Your task to perform on an android device: Find coffee shops on Maps Image 0: 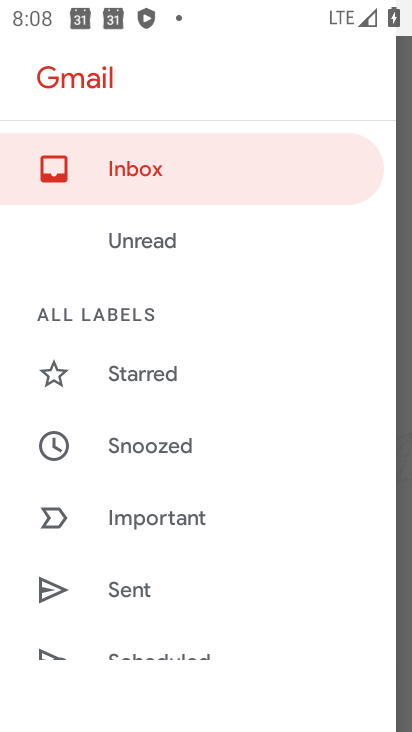
Step 0: press home button
Your task to perform on an android device: Find coffee shops on Maps Image 1: 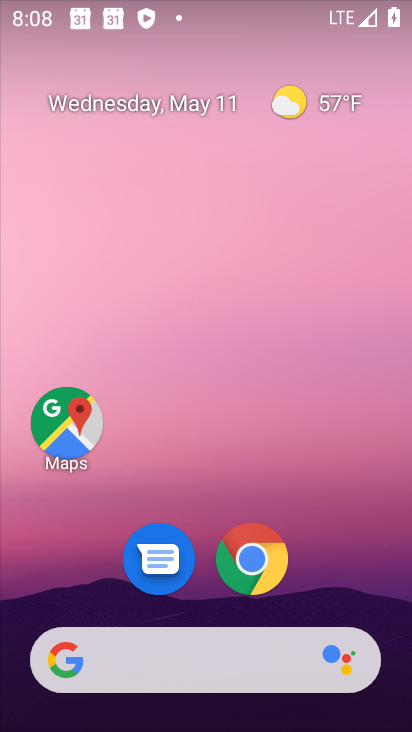
Step 1: drag from (350, 540) to (274, 33)
Your task to perform on an android device: Find coffee shops on Maps Image 2: 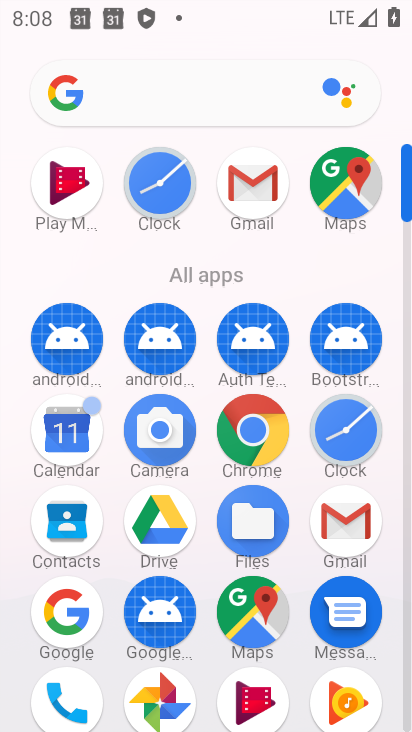
Step 2: click (310, 201)
Your task to perform on an android device: Find coffee shops on Maps Image 3: 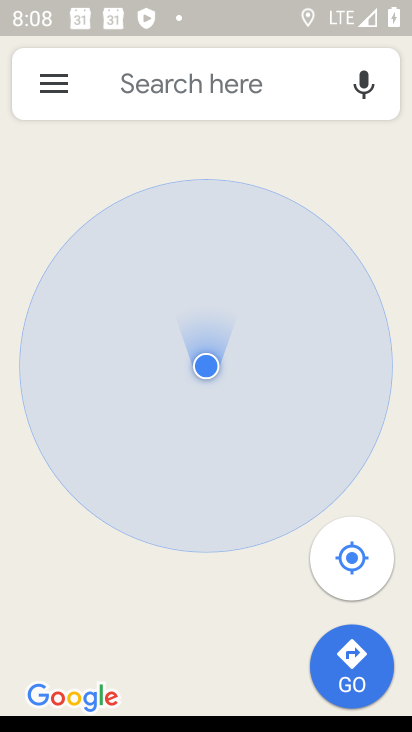
Step 3: click (206, 95)
Your task to perform on an android device: Find coffee shops on Maps Image 4: 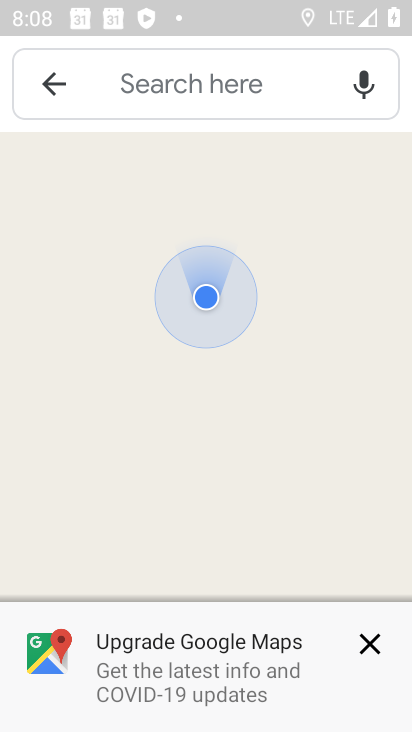
Step 4: click (215, 83)
Your task to perform on an android device: Find coffee shops on Maps Image 5: 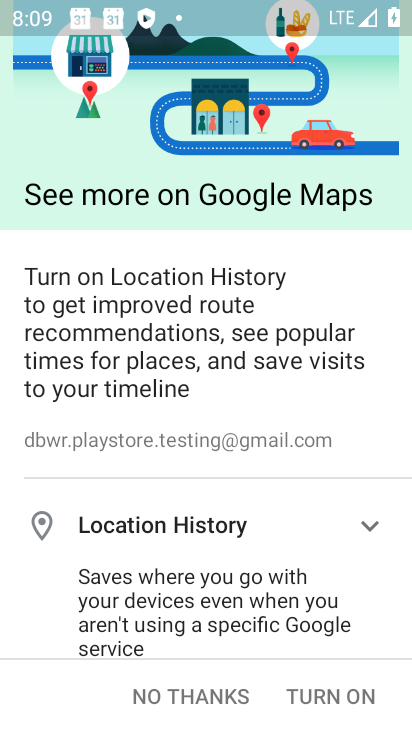
Step 5: type "coffee shop"
Your task to perform on an android device: Find coffee shops on Maps Image 6: 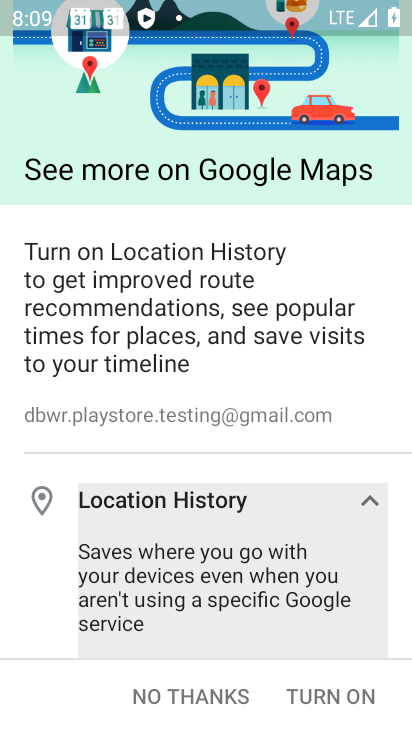
Step 6: click (163, 693)
Your task to perform on an android device: Find coffee shops on Maps Image 7: 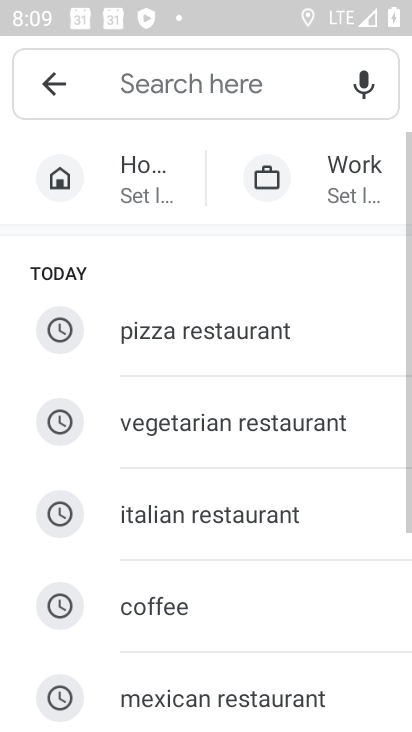
Step 7: click (177, 82)
Your task to perform on an android device: Find coffee shops on Maps Image 8: 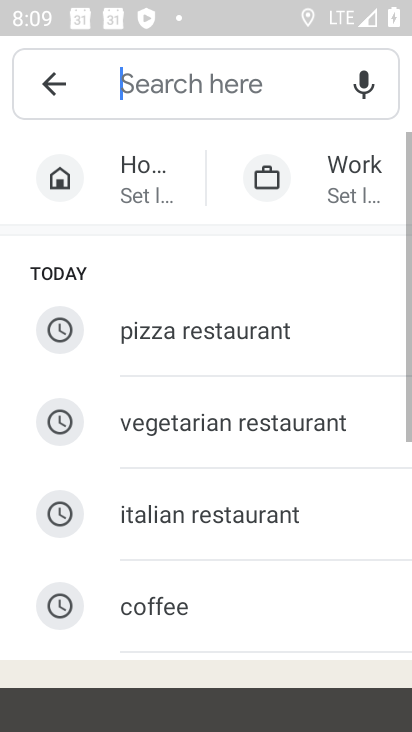
Step 8: click (177, 82)
Your task to perform on an android device: Find coffee shops on Maps Image 9: 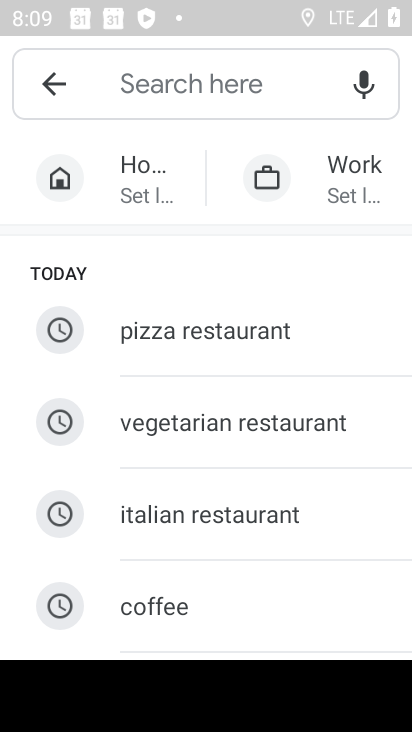
Step 9: type "coffee shops"
Your task to perform on an android device: Find coffee shops on Maps Image 10: 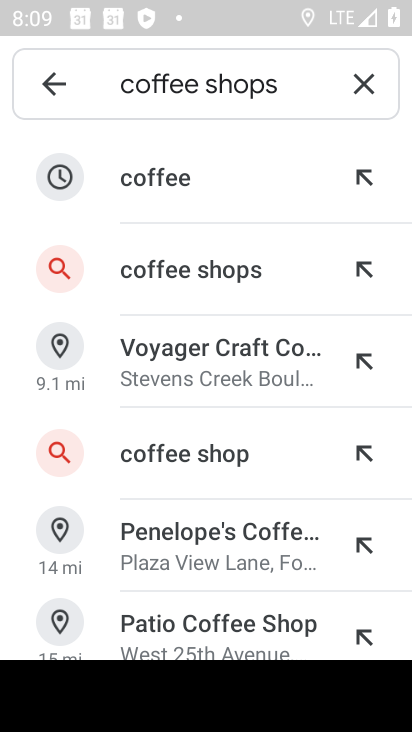
Step 10: click (190, 264)
Your task to perform on an android device: Find coffee shops on Maps Image 11: 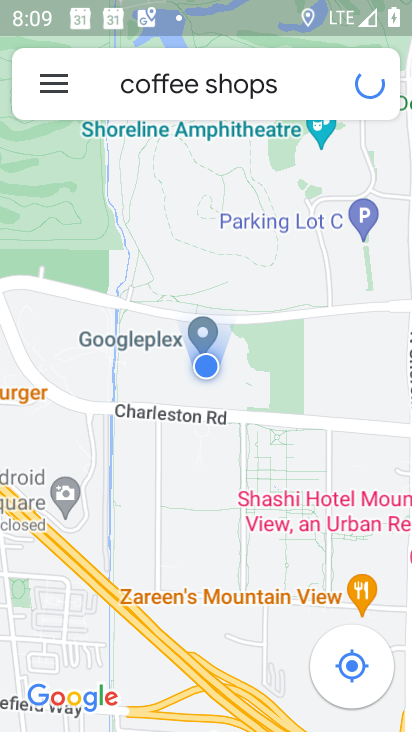
Step 11: click (190, 264)
Your task to perform on an android device: Find coffee shops on Maps Image 12: 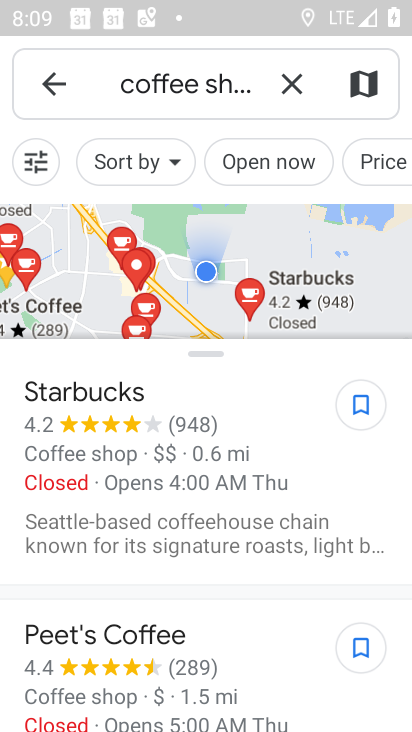
Step 12: task complete